Your task to perform on an android device: open wifi settings Image 0: 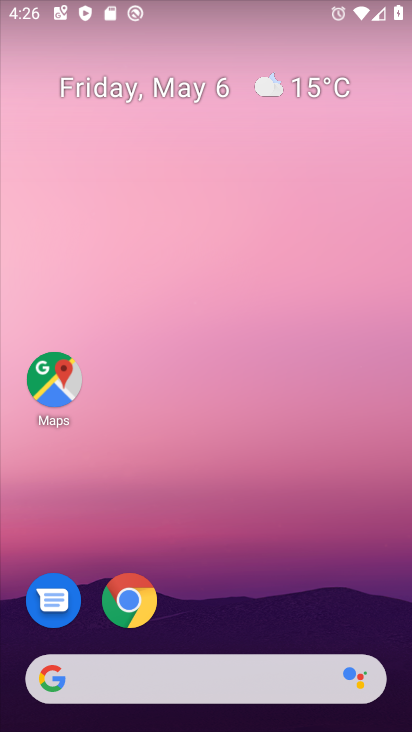
Step 0: drag from (215, 626) to (198, 111)
Your task to perform on an android device: open wifi settings Image 1: 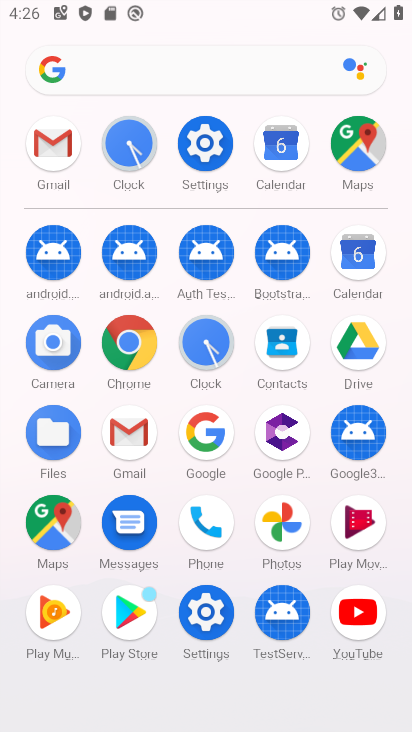
Step 1: click (207, 160)
Your task to perform on an android device: open wifi settings Image 2: 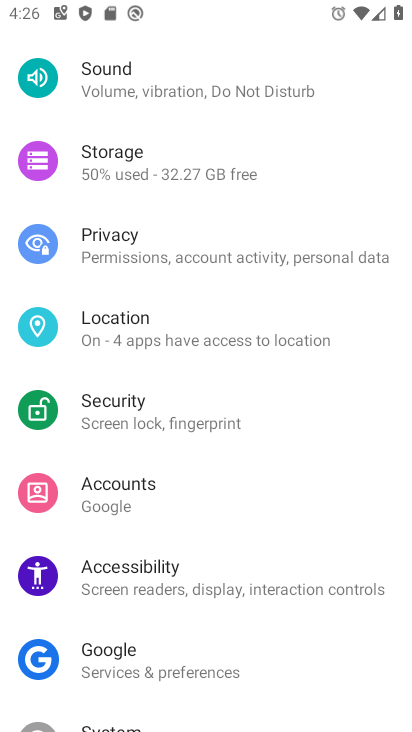
Step 2: drag from (200, 161) to (196, 594)
Your task to perform on an android device: open wifi settings Image 3: 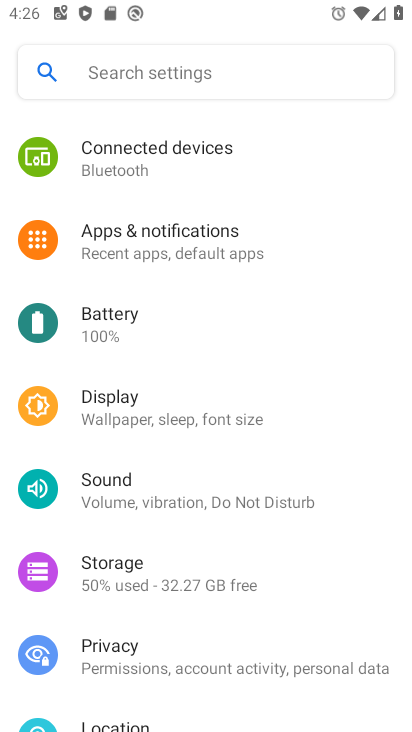
Step 3: drag from (180, 229) to (184, 488)
Your task to perform on an android device: open wifi settings Image 4: 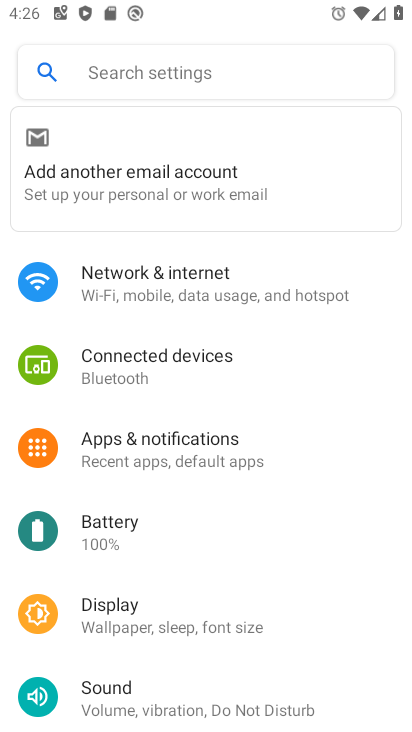
Step 4: click (152, 273)
Your task to perform on an android device: open wifi settings Image 5: 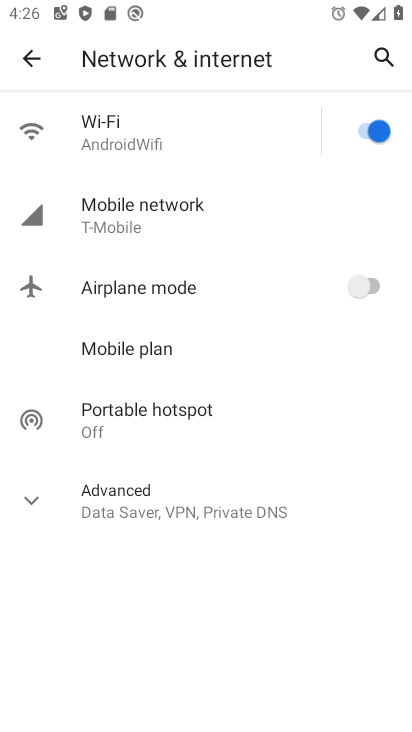
Step 5: click (149, 153)
Your task to perform on an android device: open wifi settings Image 6: 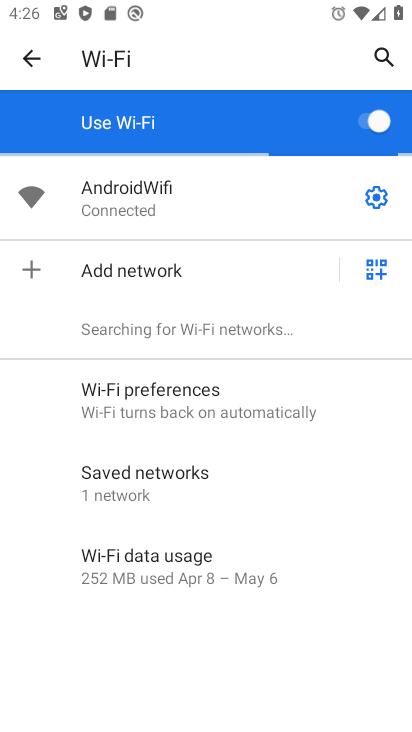
Step 6: task complete